Your task to perform on an android device: Go to Reddit.com Image 0: 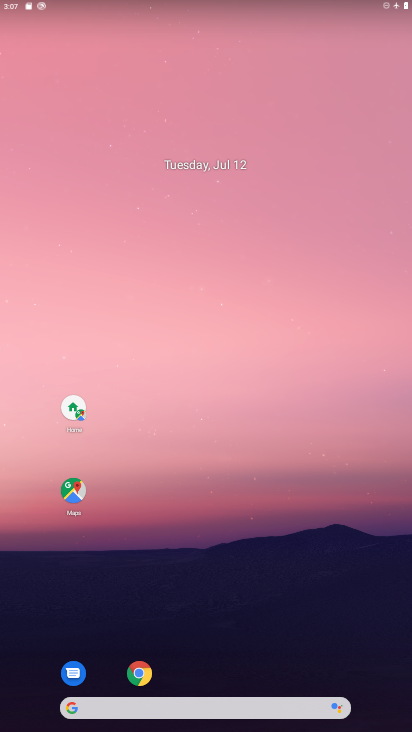
Step 0: drag from (225, 672) to (220, 296)
Your task to perform on an android device: Go to Reddit.com Image 1: 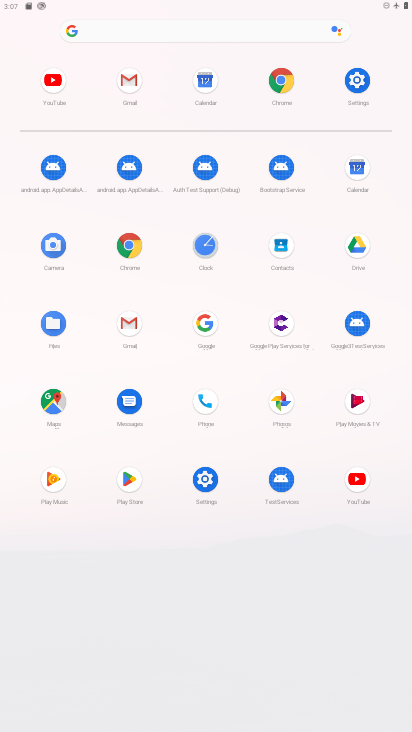
Step 1: click (285, 74)
Your task to perform on an android device: Go to Reddit.com Image 2: 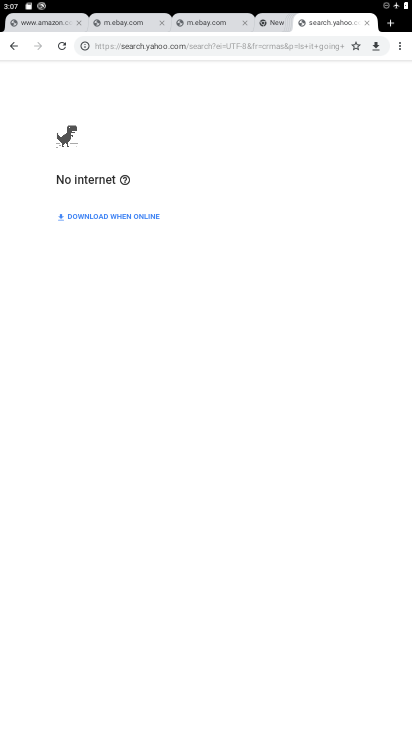
Step 2: click (402, 43)
Your task to perform on an android device: Go to Reddit.com Image 3: 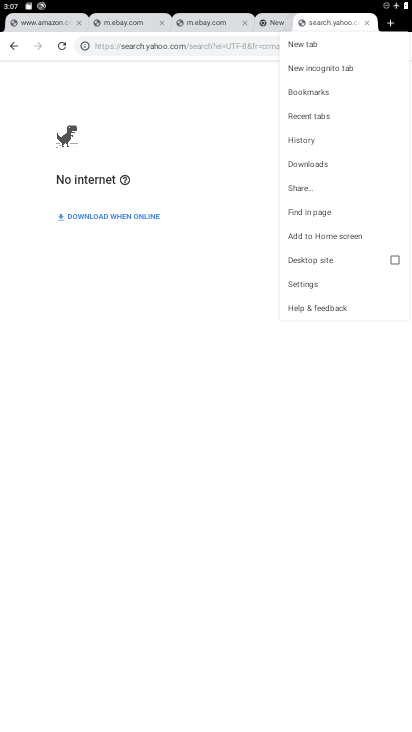
Step 3: click (306, 41)
Your task to perform on an android device: Go to Reddit.com Image 4: 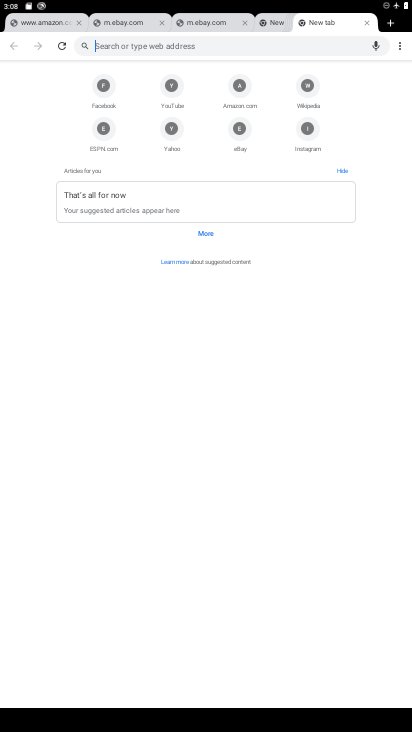
Step 4: click (212, 37)
Your task to perform on an android device: Go to Reddit.com Image 5: 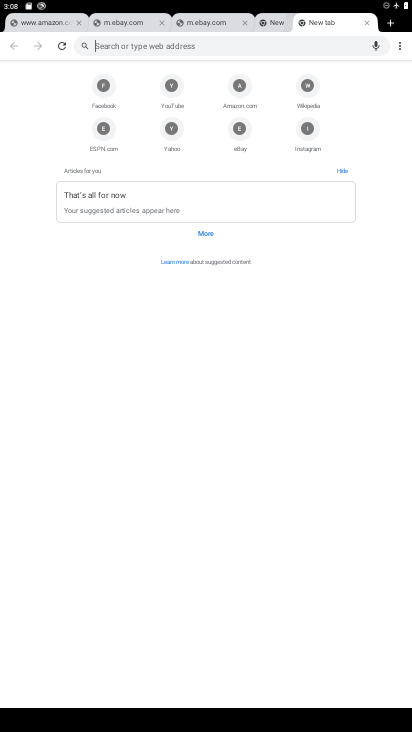
Step 5: type "Reddit.com "
Your task to perform on an android device: Go to Reddit.com Image 6: 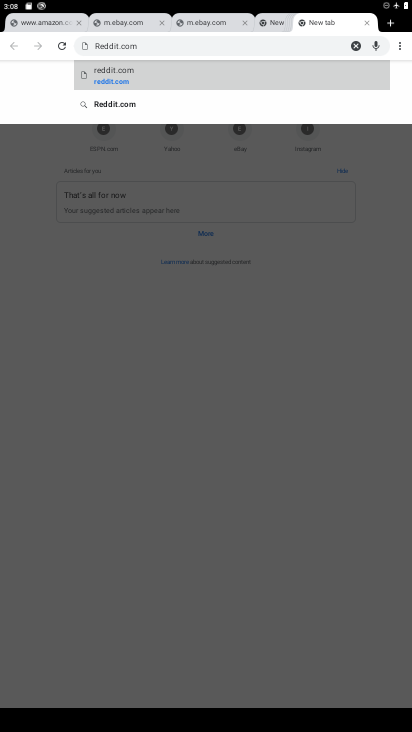
Step 6: click (273, 69)
Your task to perform on an android device: Go to Reddit.com Image 7: 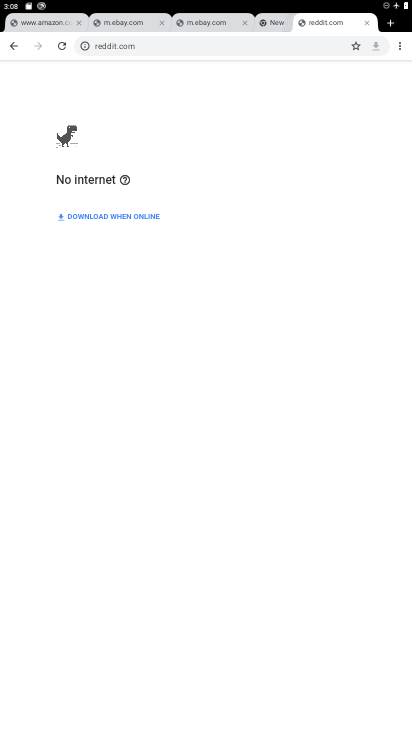
Step 7: task complete